Your task to perform on an android device: Go to Reddit.com Image 0: 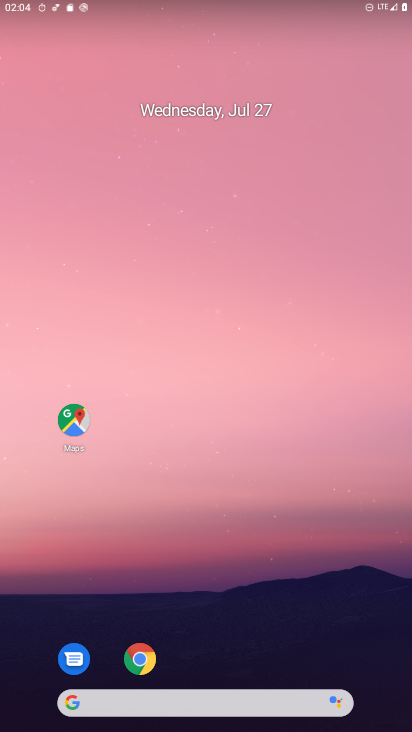
Step 0: drag from (324, 607) to (274, 69)
Your task to perform on an android device: Go to Reddit.com Image 1: 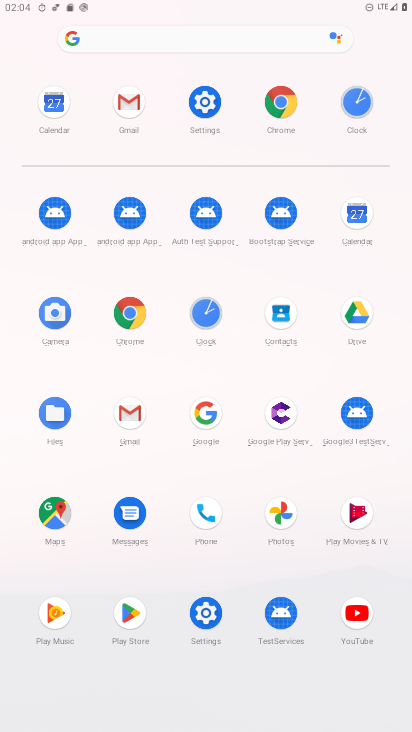
Step 1: click (285, 100)
Your task to perform on an android device: Go to Reddit.com Image 2: 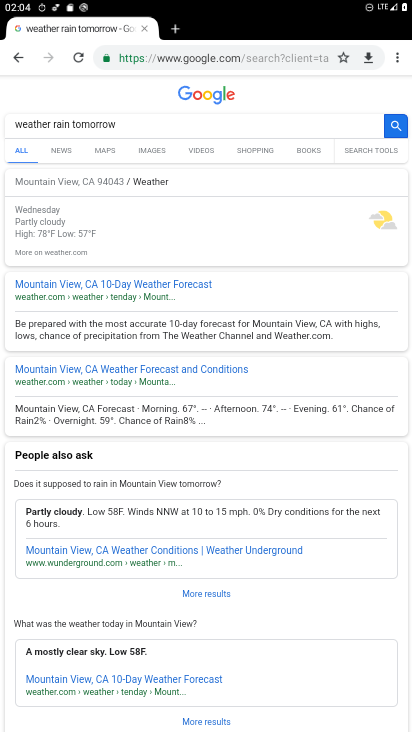
Step 2: click (170, 56)
Your task to perform on an android device: Go to Reddit.com Image 3: 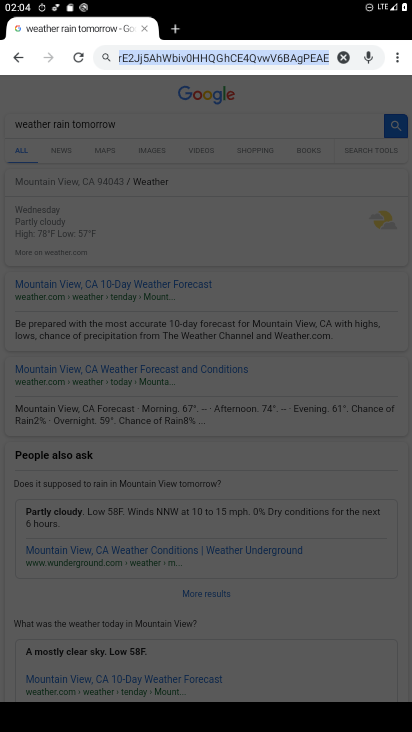
Step 3: type "reddit.com"
Your task to perform on an android device: Go to Reddit.com Image 4: 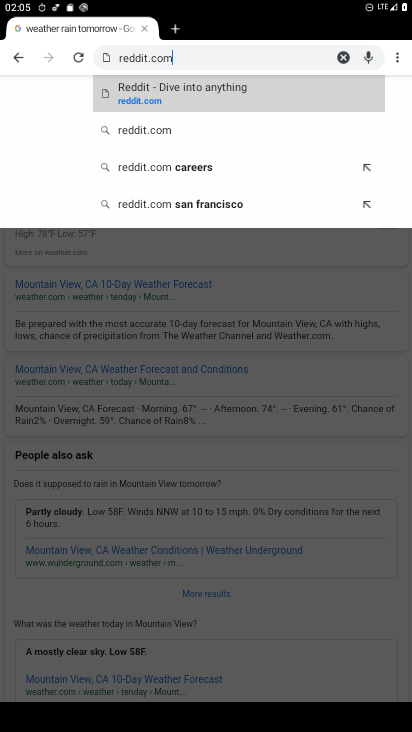
Step 4: click (142, 87)
Your task to perform on an android device: Go to Reddit.com Image 5: 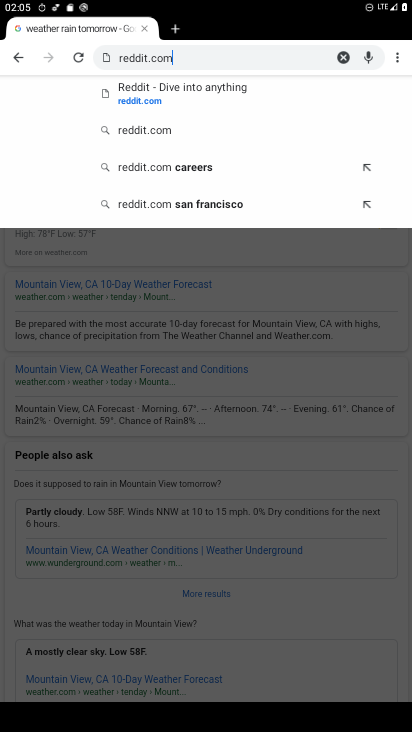
Step 5: click (147, 104)
Your task to perform on an android device: Go to Reddit.com Image 6: 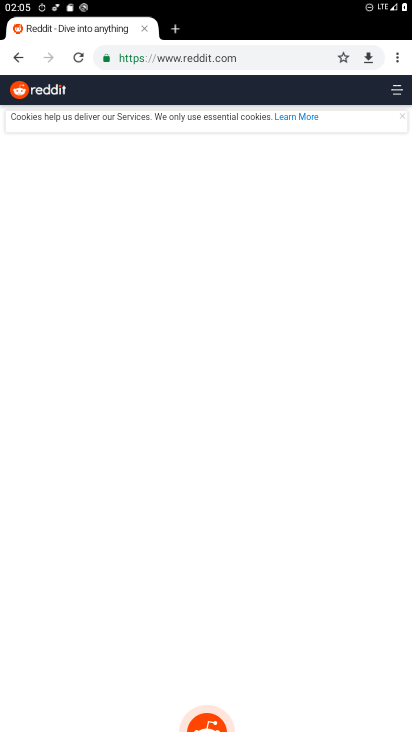
Step 6: task complete